Your task to perform on an android device: delete a single message in the gmail app Image 0: 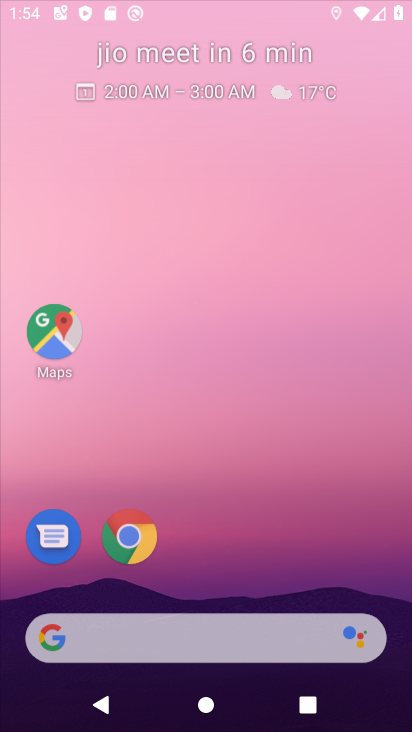
Step 0: drag from (326, 580) to (287, 140)
Your task to perform on an android device: delete a single message in the gmail app Image 1: 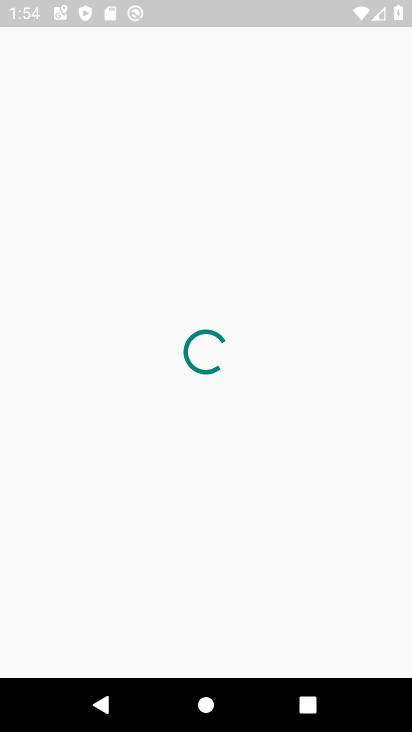
Step 1: click (146, 145)
Your task to perform on an android device: delete a single message in the gmail app Image 2: 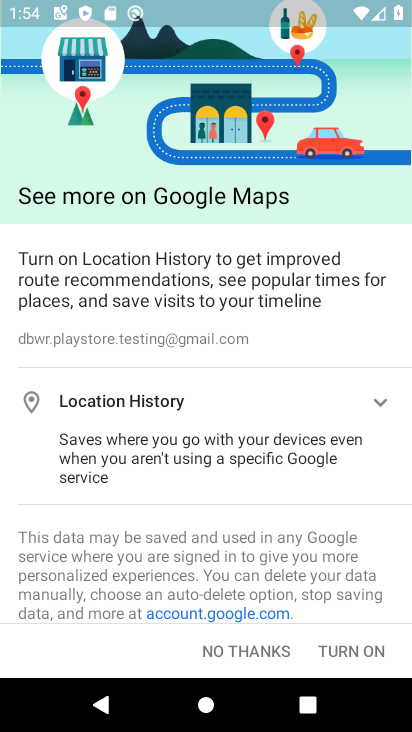
Step 2: click (320, 636)
Your task to perform on an android device: delete a single message in the gmail app Image 3: 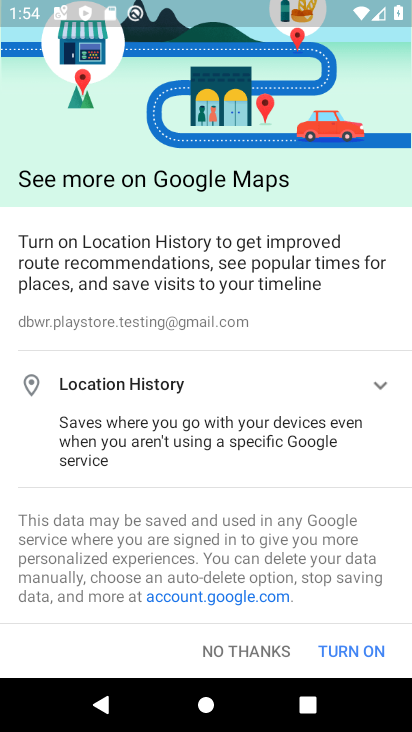
Step 3: click (320, 636)
Your task to perform on an android device: delete a single message in the gmail app Image 4: 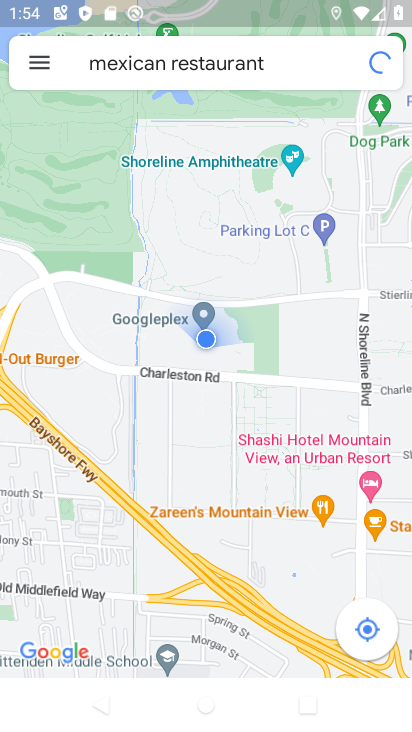
Step 4: press home button
Your task to perform on an android device: delete a single message in the gmail app Image 5: 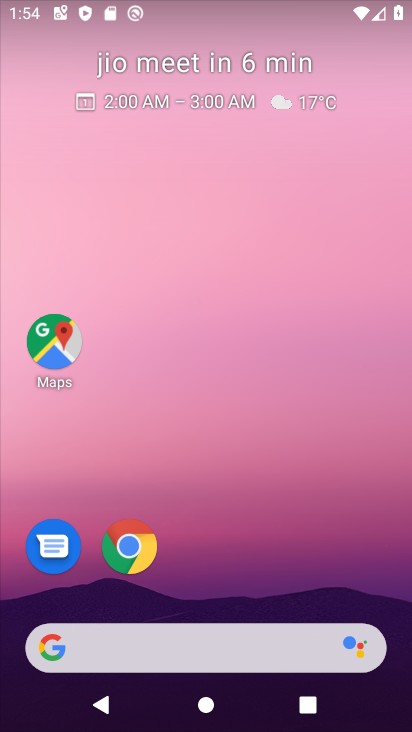
Step 5: drag from (271, 588) to (277, 136)
Your task to perform on an android device: delete a single message in the gmail app Image 6: 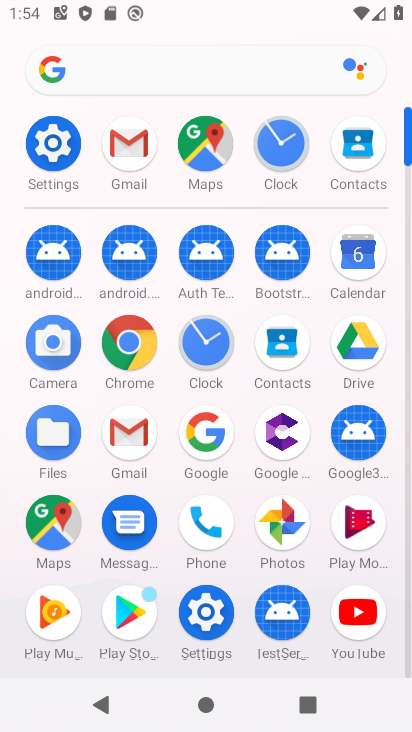
Step 6: click (120, 170)
Your task to perform on an android device: delete a single message in the gmail app Image 7: 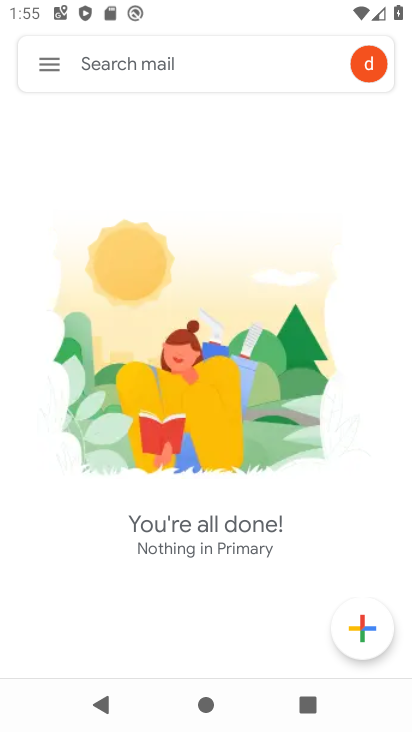
Step 7: click (50, 82)
Your task to perform on an android device: delete a single message in the gmail app Image 8: 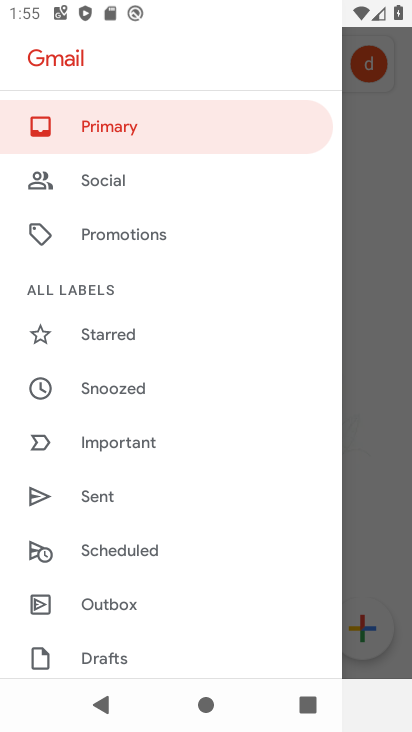
Step 8: drag from (135, 636) to (146, 255)
Your task to perform on an android device: delete a single message in the gmail app Image 9: 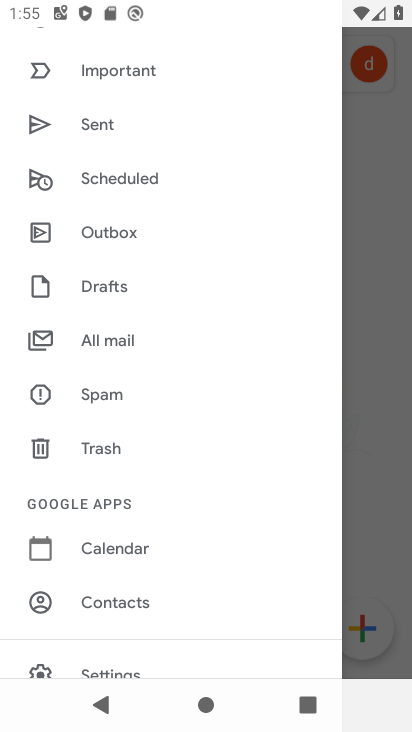
Step 9: click (111, 328)
Your task to perform on an android device: delete a single message in the gmail app Image 10: 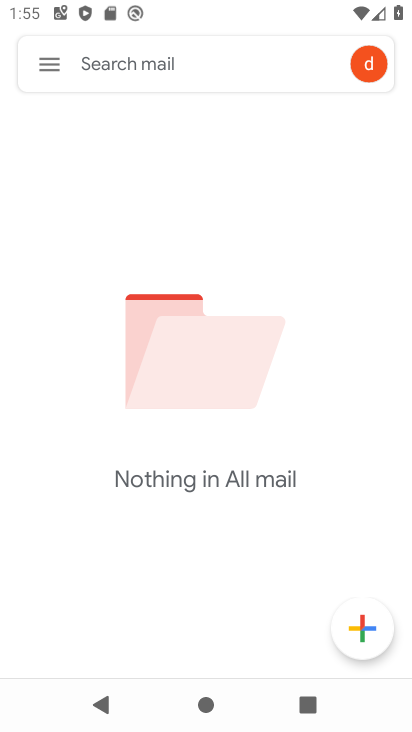
Step 10: task complete